Your task to perform on an android device: turn off notifications settings in the gmail app Image 0: 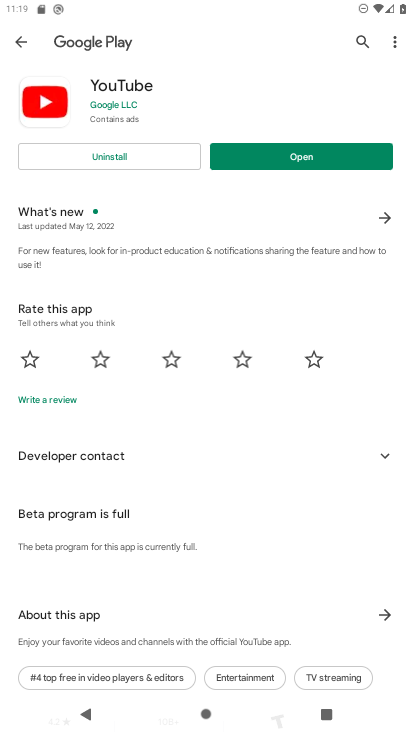
Step 0: press back button
Your task to perform on an android device: turn off notifications settings in the gmail app Image 1: 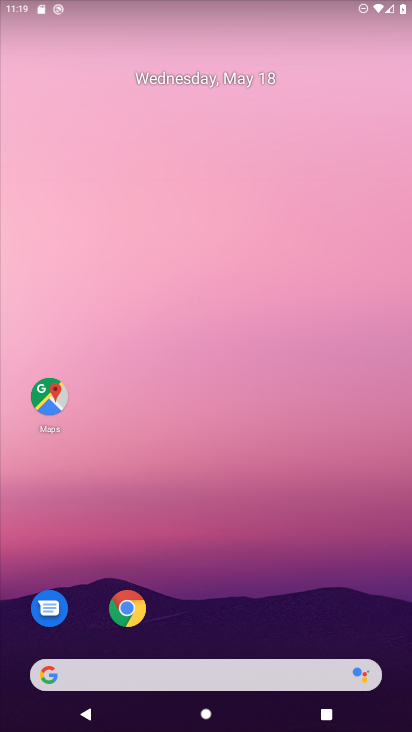
Step 1: drag from (238, 591) to (222, 105)
Your task to perform on an android device: turn off notifications settings in the gmail app Image 2: 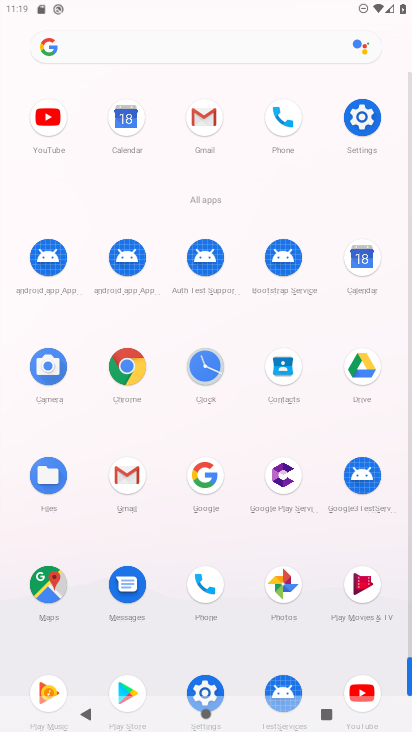
Step 2: click (204, 113)
Your task to perform on an android device: turn off notifications settings in the gmail app Image 3: 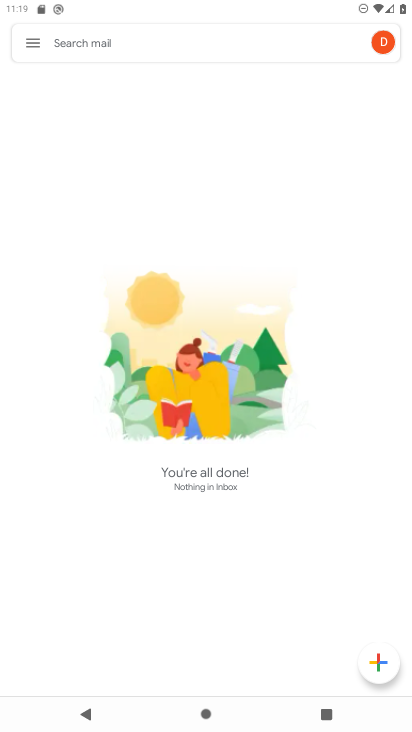
Step 3: click (34, 43)
Your task to perform on an android device: turn off notifications settings in the gmail app Image 4: 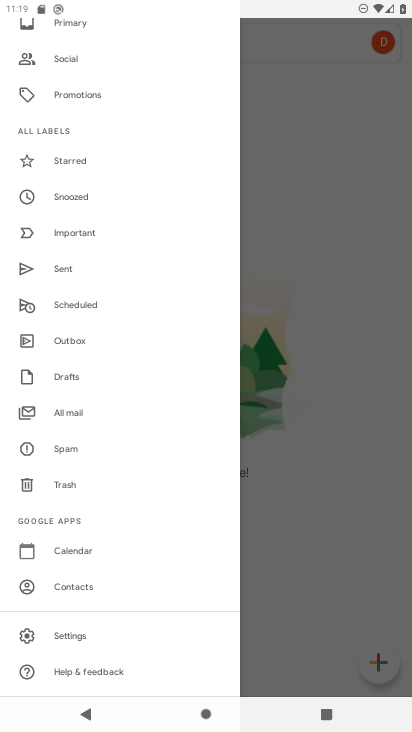
Step 4: click (74, 631)
Your task to perform on an android device: turn off notifications settings in the gmail app Image 5: 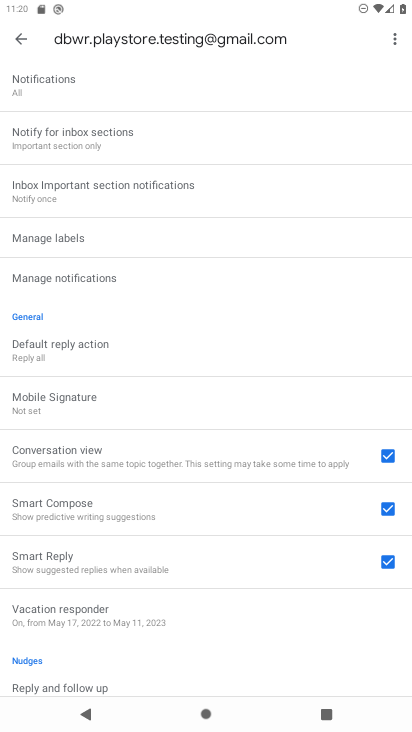
Step 5: click (79, 278)
Your task to perform on an android device: turn off notifications settings in the gmail app Image 6: 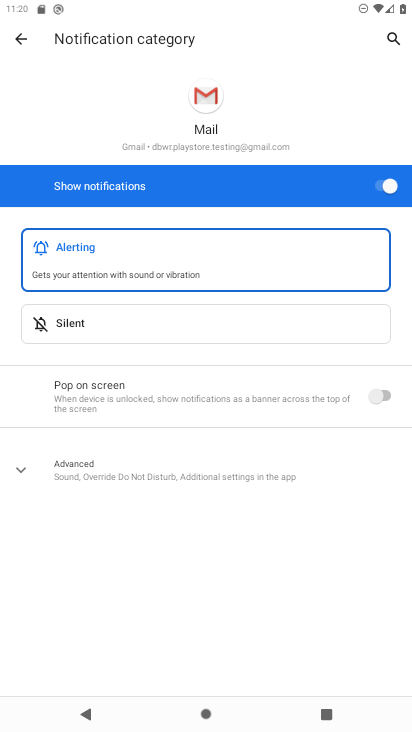
Step 6: click (377, 187)
Your task to perform on an android device: turn off notifications settings in the gmail app Image 7: 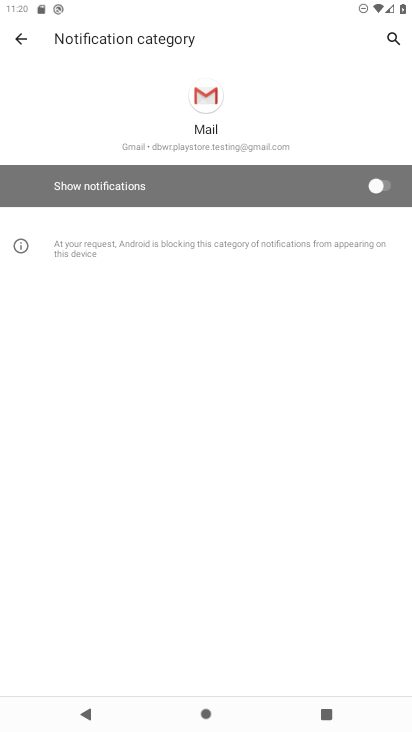
Step 7: task complete